Your task to perform on an android device: Open Google Chrome and open the bookmarks view Image 0: 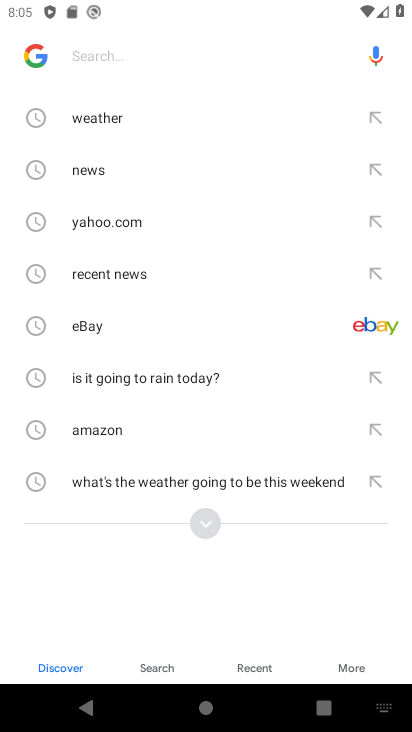
Step 0: press home button
Your task to perform on an android device: Open Google Chrome and open the bookmarks view Image 1: 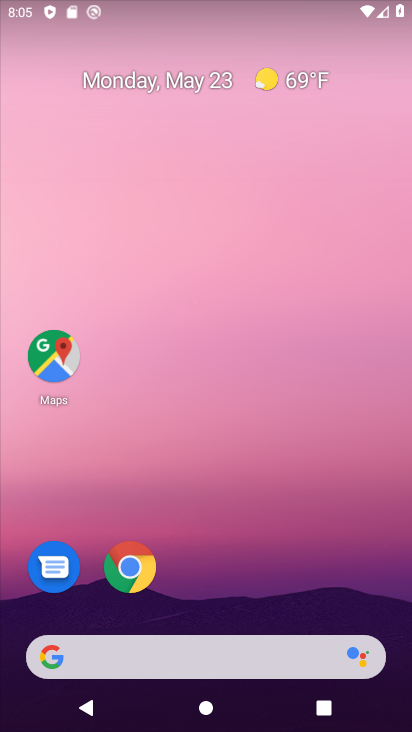
Step 1: click (137, 561)
Your task to perform on an android device: Open Google Chrome and open the bookmarks view Image 2: 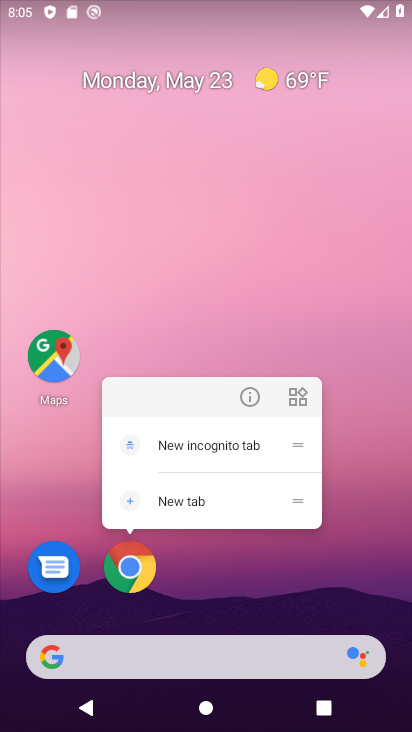
Step 2: click (178, 572)
Your task to perform on an android device: Open Google Chrome and open the bookmarks view Image 3: 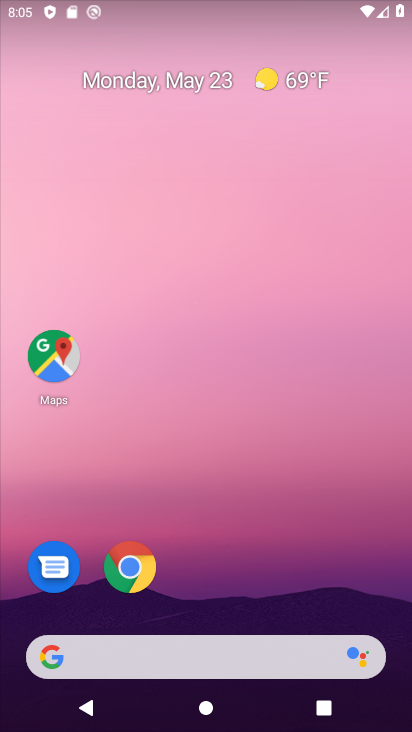
Step 3: click (132, 562)
Your task to perform on an android device: Open Google Chrome and open the bookmarks view Image 4: 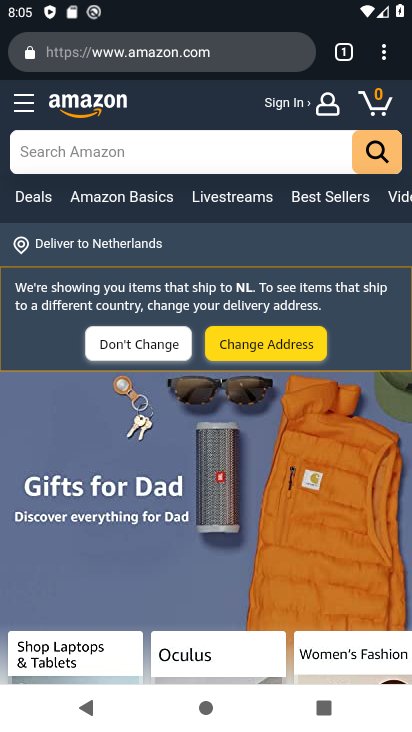
Step 4: click (384, 55)
Your task to perform on an android device: Open Google Chrome and open the bookmarks view Image 5: 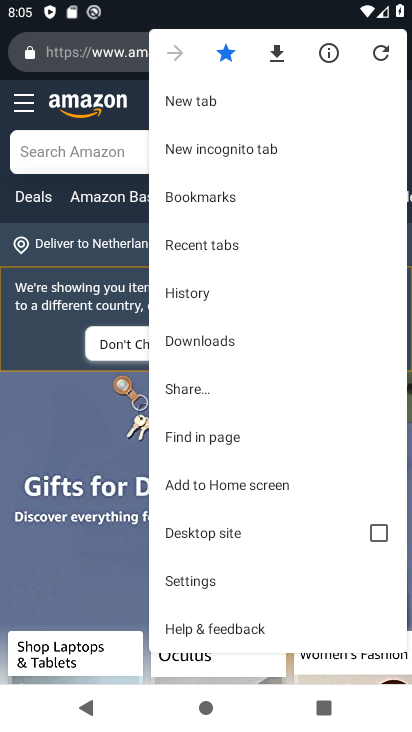
Step 5: click (221, 200)
Your task to perform on an android device: Open Google Chrome and open the bookmarks view Image 6: 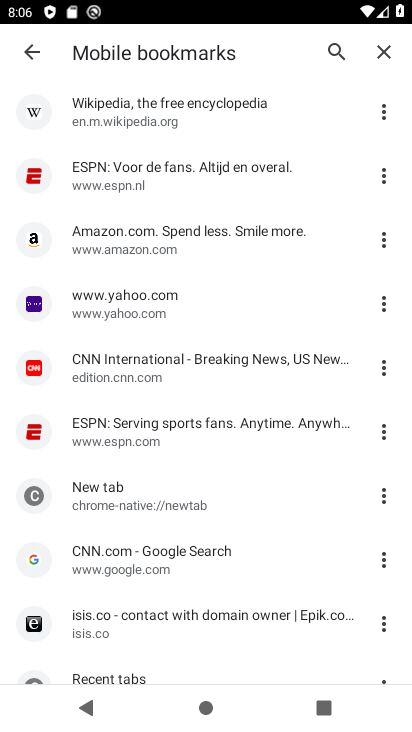
Step 6: task complete